Your task to perform on an android device: Turn off the flashlight Image 0: 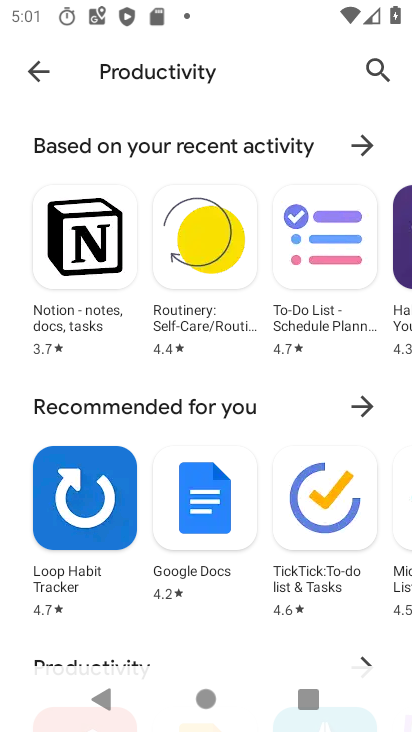
Step 0: press home button
Your task to perform on an android device: Turn off the flashlight Image 1: 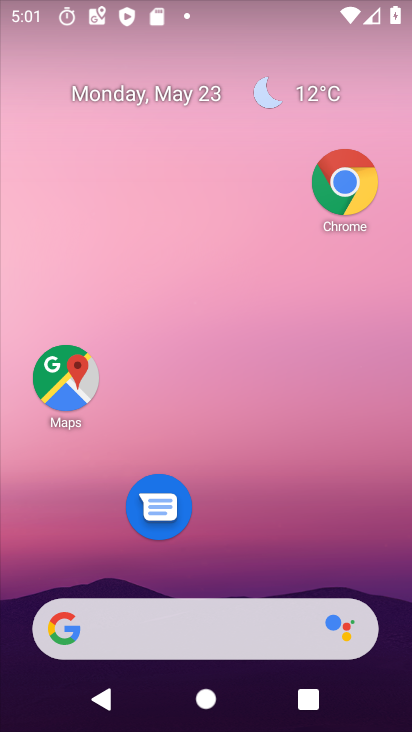
Step 1: drag from (202, 579) to (291, 47)
Your task to perform on an android device: Turn off the flashlight Image 2: 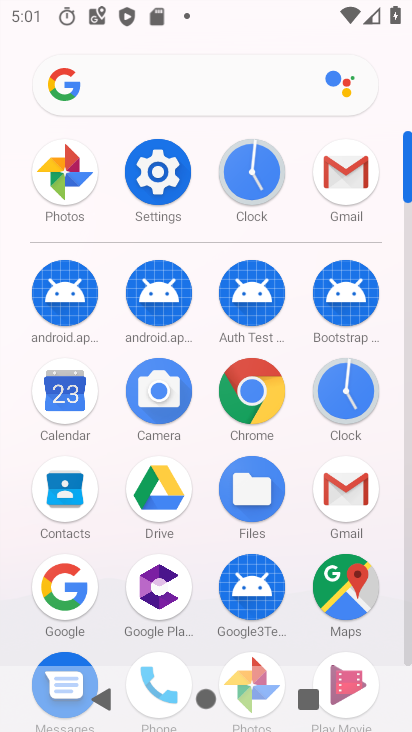
Step 2: click (141, 186)
Your task to perform on an android device: Turn off the flashlight Image 3: 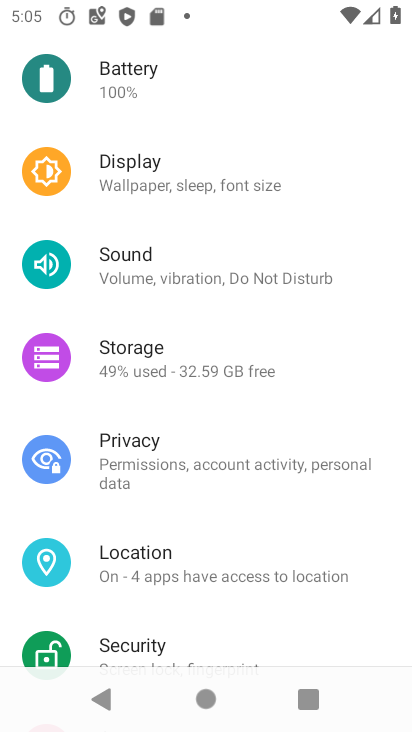
Step 3: task complete